Your task to perform on an android device: toggle airplane mode Image 0: 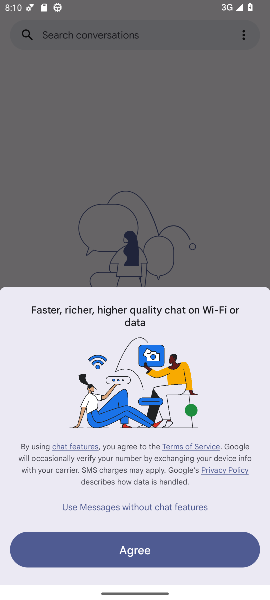
Step 0: press home button
Your task to perform on an android device: toggle airplane mode Image 1: 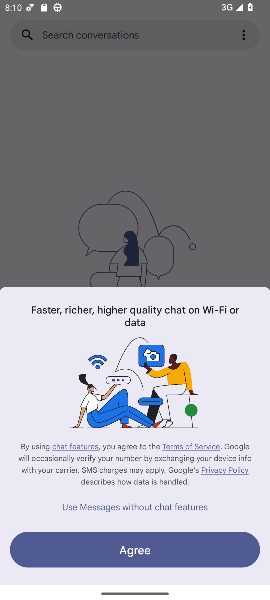
Step 1: press home button
Your task to perform on an android device: toggle airplane mode Image 2: 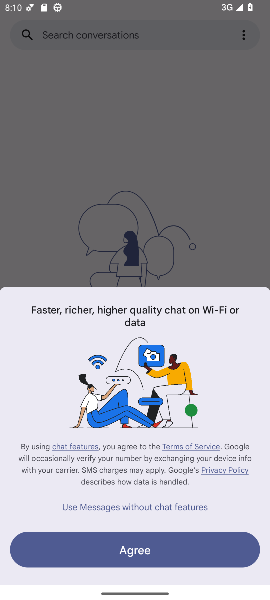
Step 2: press home button
Your task to perform on an android device: toggle airplane mode Image 3: 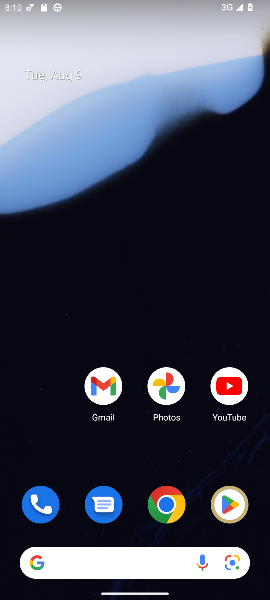
Step 3: drag from (223, 0) to (130, 573)
Your task to perform on an android device: toggle airplane mode Image 4: 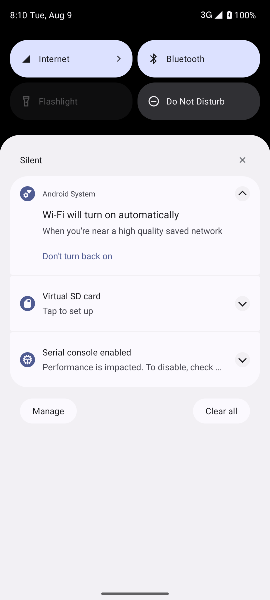
Step 4: drag from (138, 110) to (93, 592)
Your task to perform on an android device: toggle airplane mode Image 5: 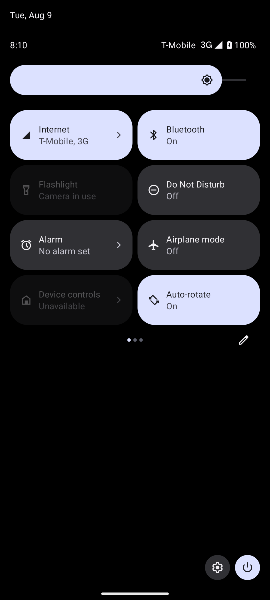
Step 5: drag from (262, 268) to (110, 321)
Your task to perform on an android device: toggle airplane mode Image 6: 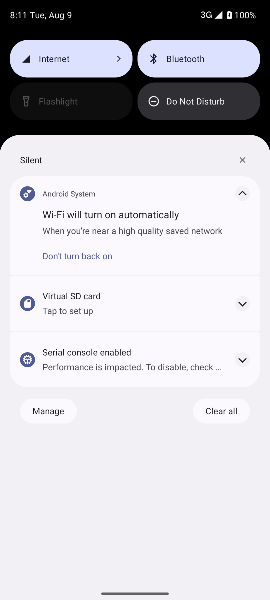
Step 6: drag from (121, 128) to (120, 535)
Your task to perform on an android device: toggle airplane mode Image 7: 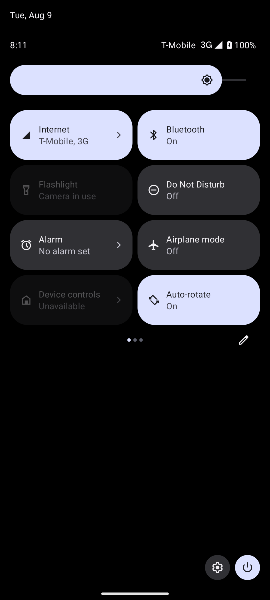
Step 7: click (216, 229)
Your task to perform on an android device: toggle airplane mode Image 8: 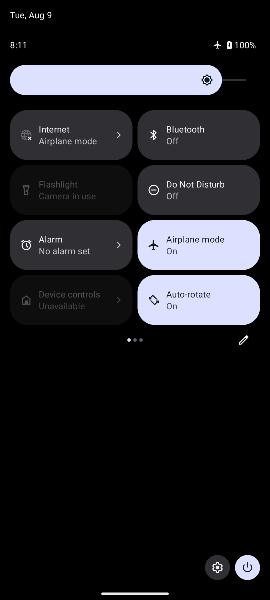
Step 8: task complete